Your task to perform on an android device: turn off notifications in google photos Image 0: 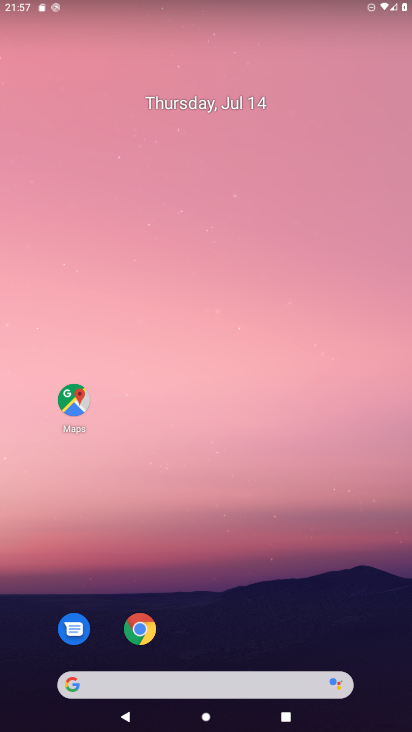
Step 0: drag from (250, 585) to (252, 177)
Your task to perform on an android device: turn off notifications in google photos Image 1: 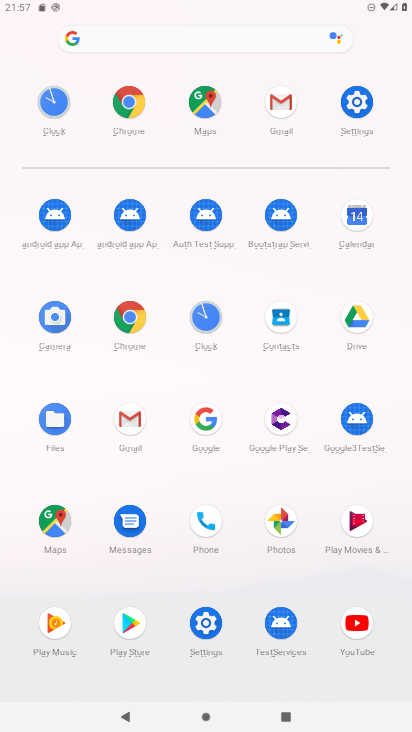
Step 1: click (267, 516)
Your task to perform on an android device: turn off notifications in google photos Image 2: 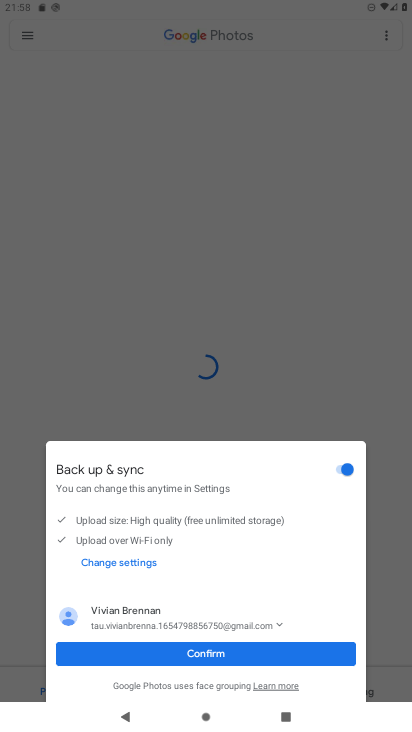
Step 2: click (28, 34)
Your task to perform on an android device: turn off notifications in google photos Image 3: 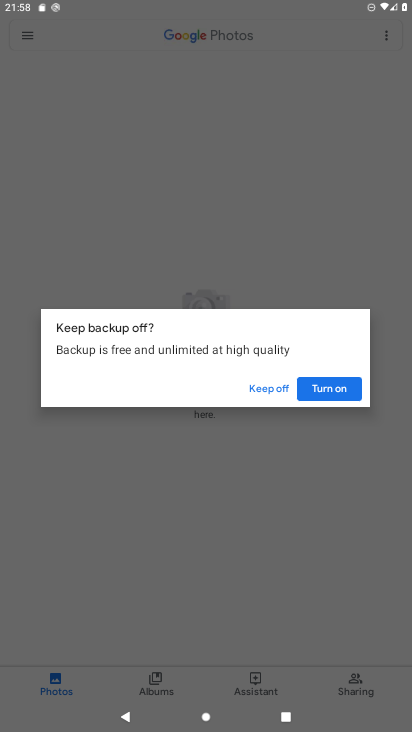
Step 3: click (262, 388)
Your task to perform on an android device: turn off notifications in google photos Image 4: 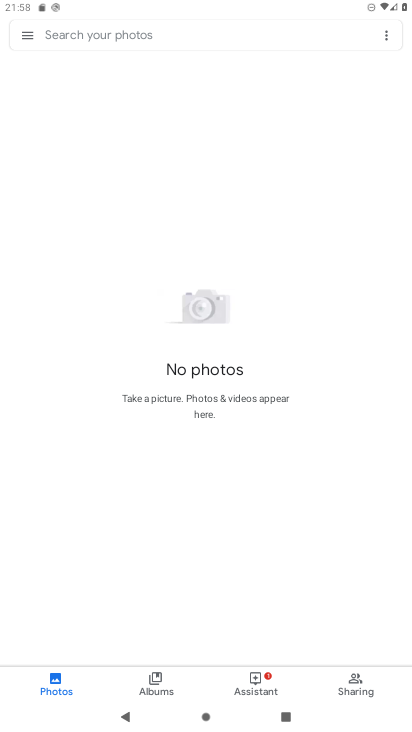
Step 4: click (26, 27)
Your task to perform on an android device: turn off notifications in google photos Image 5: 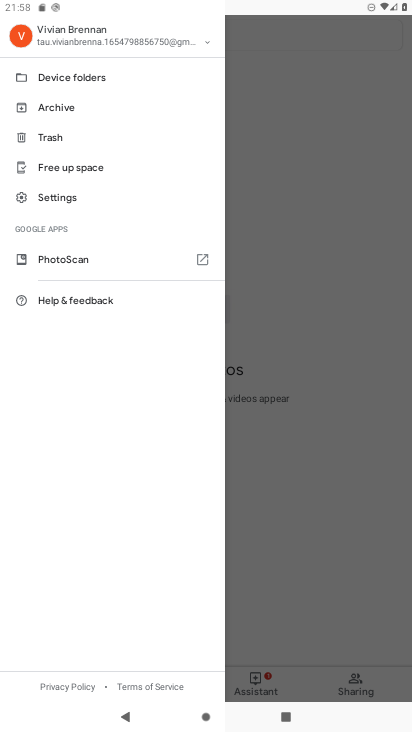
Step 5: click (70, 207)
Your task to perform on an android device: turn off notifications in google photos Image 6: 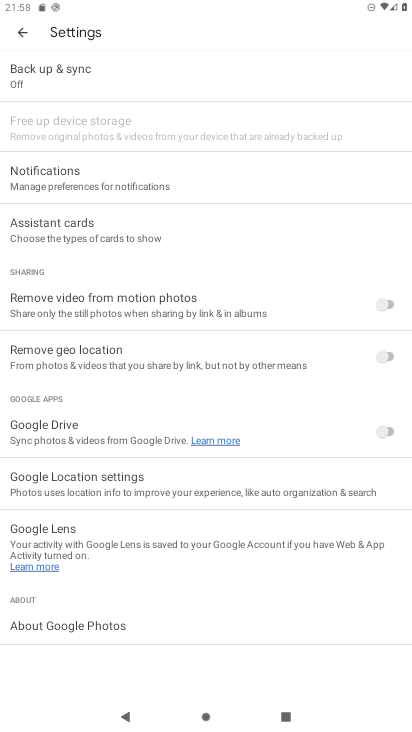
Step 6: click (74, 179)
Your task to perform on an android device: turn off notifications in google photos Image 7: 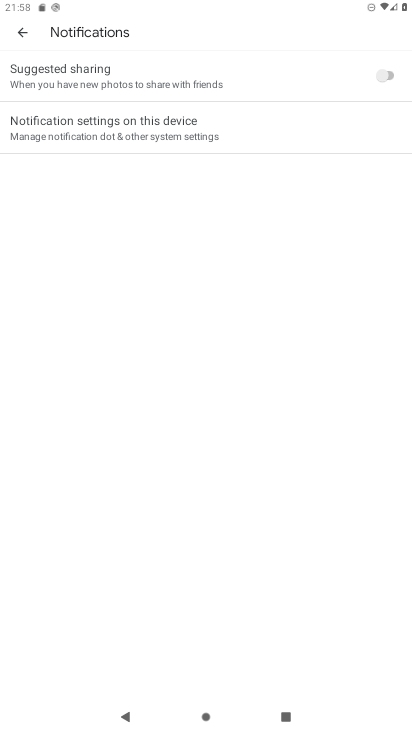
Step 7: click (62, 117)
Your task to perform on an android device: turn off notifications in google photos Image 8: 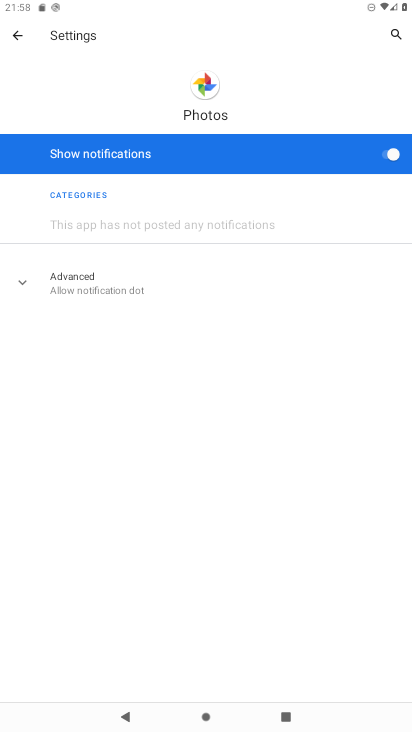
Step 8: click (380, 149)
Your task to perform on an android device: turn off notifications in google photos Image 9: 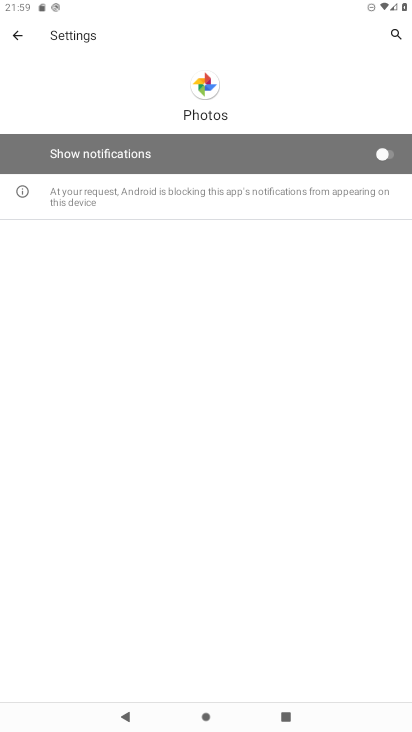
Step 9: task complete